Your task to perform on an android device: Open Google Chrome Image 0: 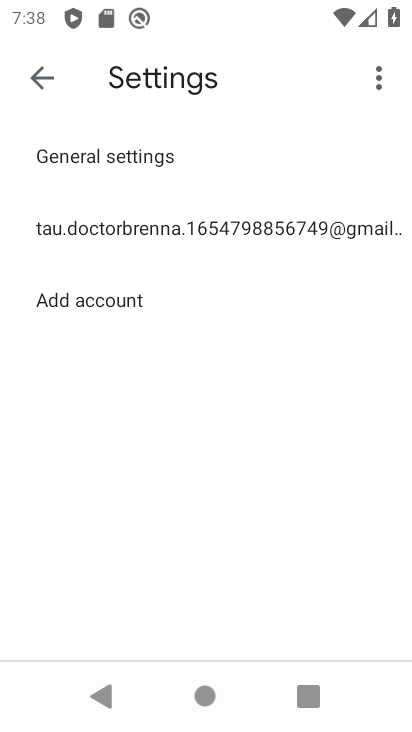
Step 0: press home button
Your task to perform on an android device: Open Google Chrome Image 1: 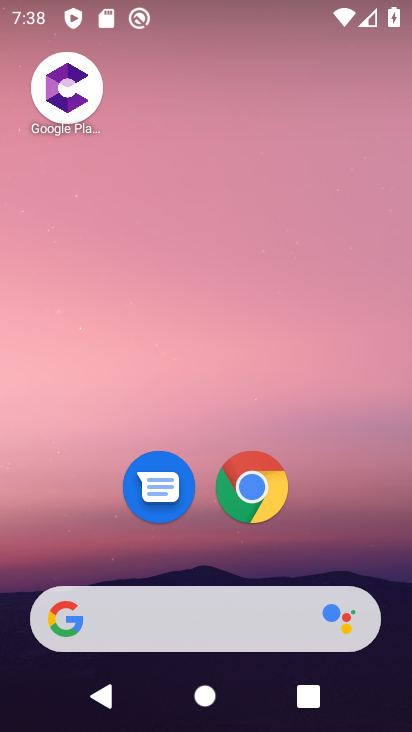
Step 1: drag from (193, 596) to (283, 65)
Your task to perform on an android device: Open Google Chrome Image 2: 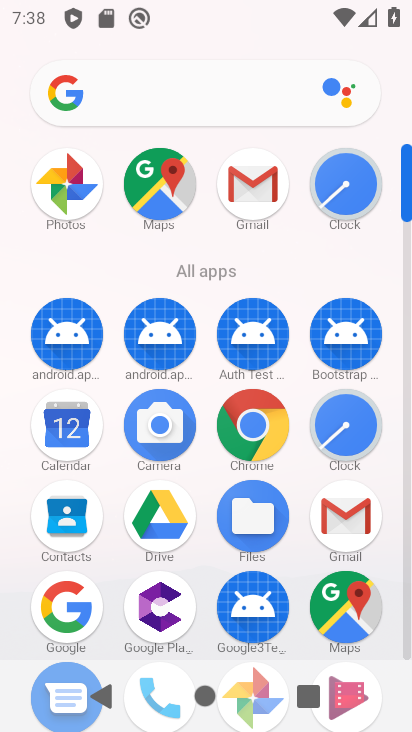
Step 2: click (262, 444)
Your task to perform on an android device: Open Google Chrome Image 3: 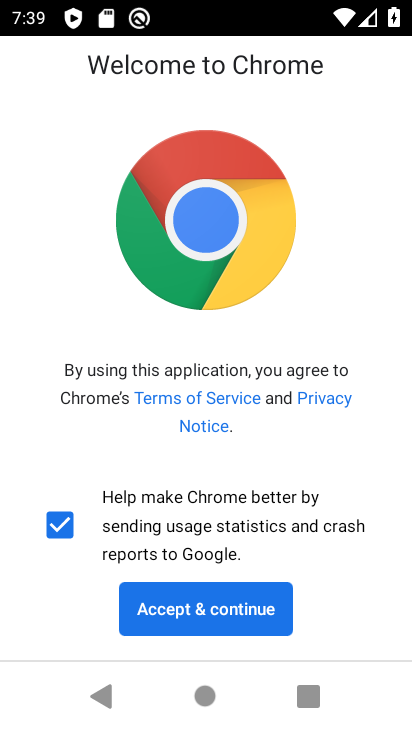
Step 3: click (256, 615)
Your task to perform on an android device: Open Google Chrome Image 4: 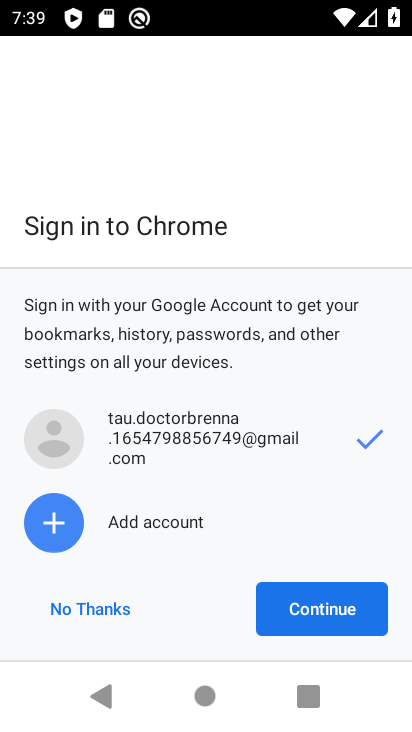
Step 4: click (370, 615)
Your task to perform on an android device: Open Google Chrome Image 5: 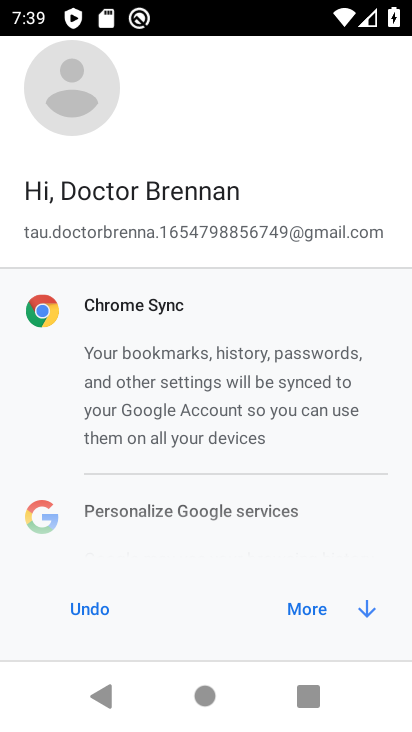
Step 5: click (357, 612)
Your task to perform on an android device: Open Google Chrome Image 6: 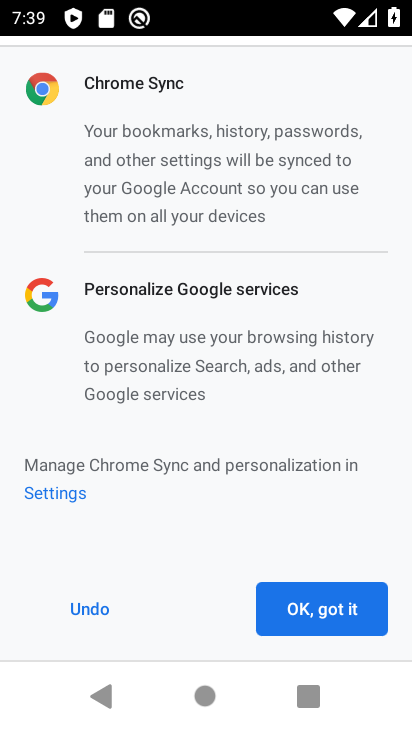
Step 6: click (349, 612)
Your task to perform on an android device: Open Google Chrome Image 7: 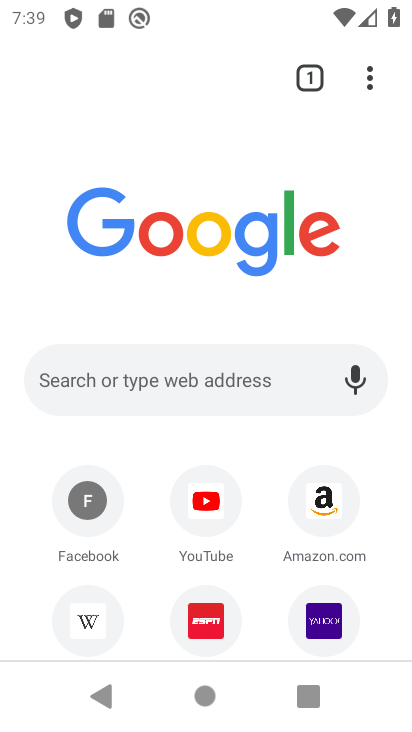
Step 7: task complete